Your task to perform on an android device: Turn on the flashlight Image 0: 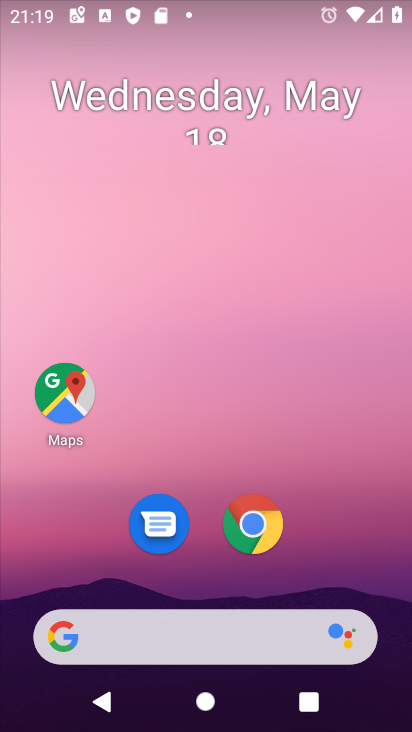
Step 0: drag from (317, 502) to (263, 61)
Your task to perform on an android device: Turn on the flashlight Image 1: 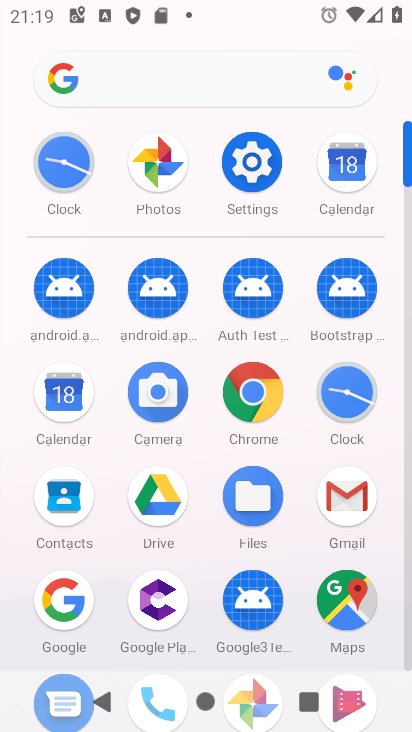
Step 1: click (258, 161)
Your task to perform on an android device: Turn on the flashlight Image 2: 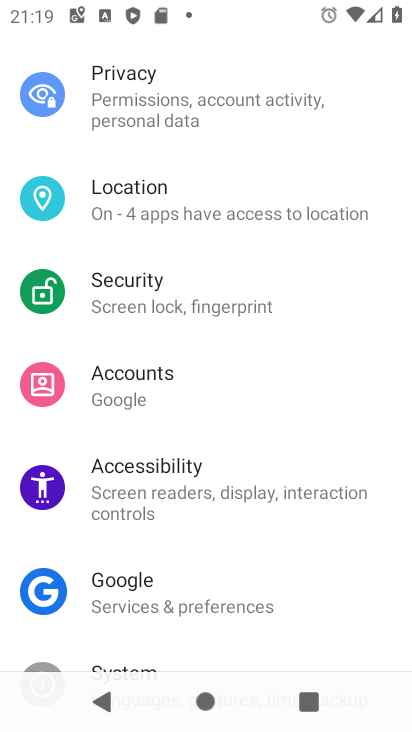
Step 2: drag from (256, 152) to (244, 598)
Your task to perform on an android device: Turn on the flashlight Image 3: 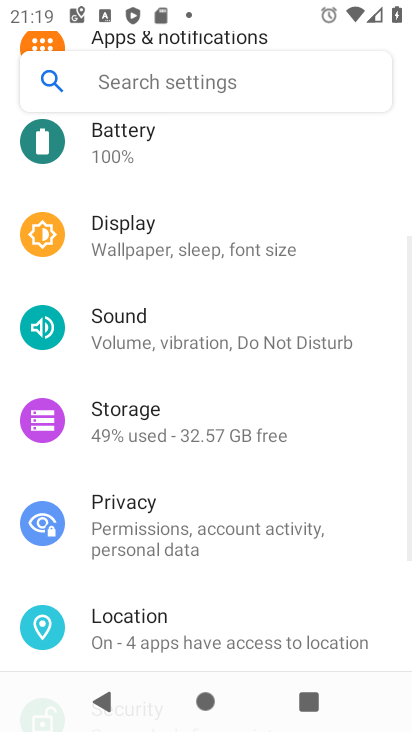
Step 3: drag from (205, 174) to (256, 641)
Your task to perform on an android device: Turn on the flashlight Image 4: 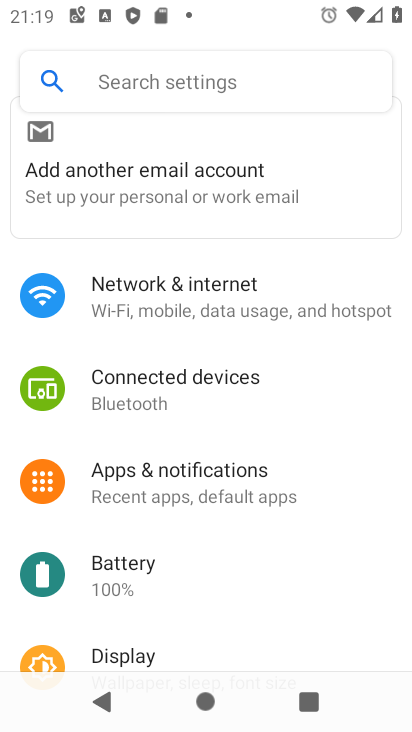
Step 4: click (280, 77)
Your task to perform on an android device: Turn on the flashlight Image 5: 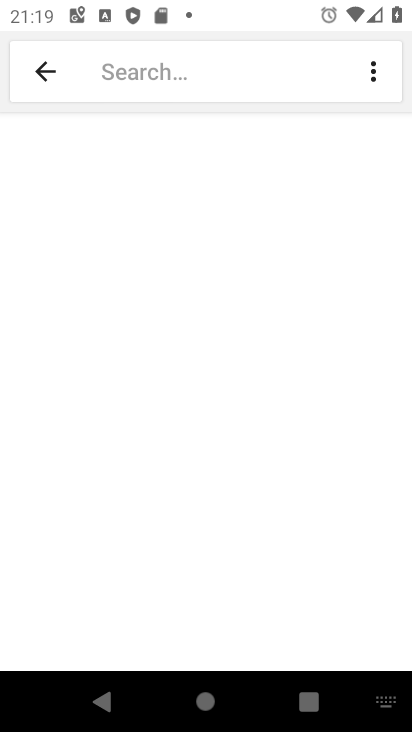
Step 5: type "Flashlight"
Your task to perform on an android device: Turn on the flashlight Image 6: 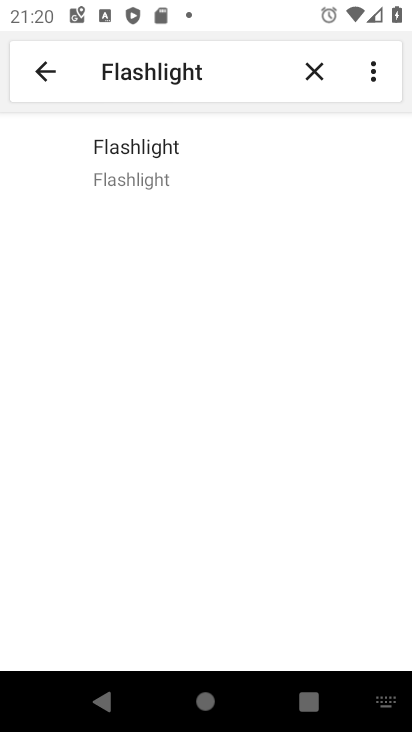
Step 6: click (146, 162)
Your task to perform on an android device: Turn on the flashlight Image 7: 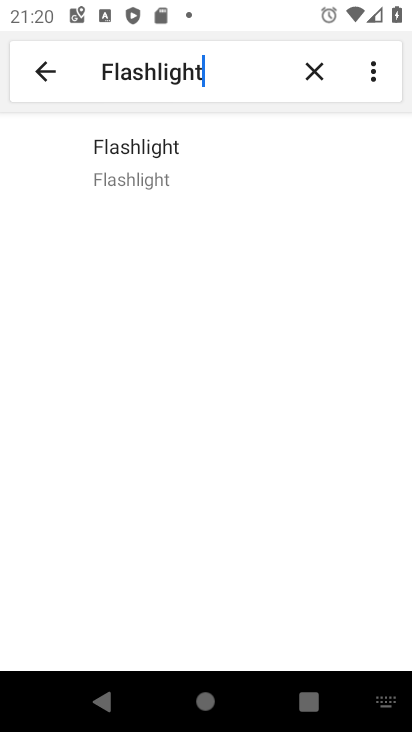
Step 7: click (146, 160)
Your task to perform on an android device: Turn on the flashlight Image 8: 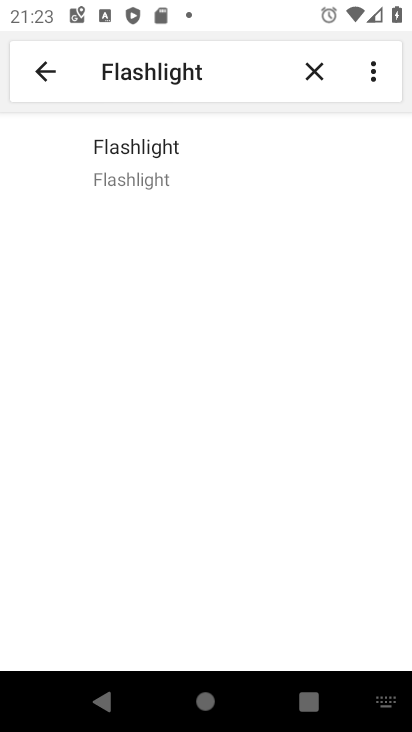
Step 8: task complete